Your task to perform on an android device: change alarm snooze length Image 0: 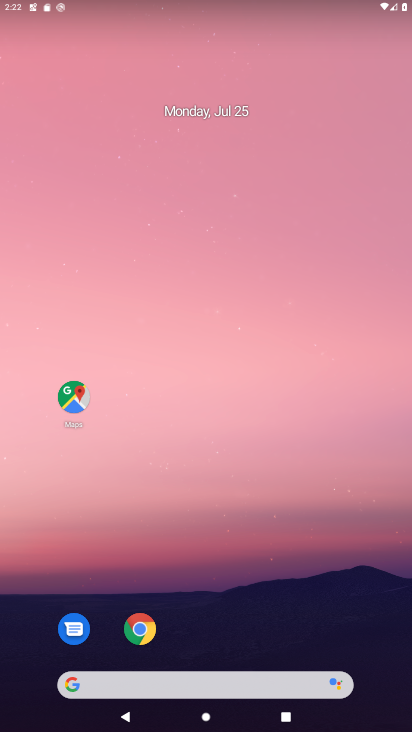
Step 0: drag from (276, 624) to (253, 0)
Your task to perform on an android device: change alarm snooze length Image 1: 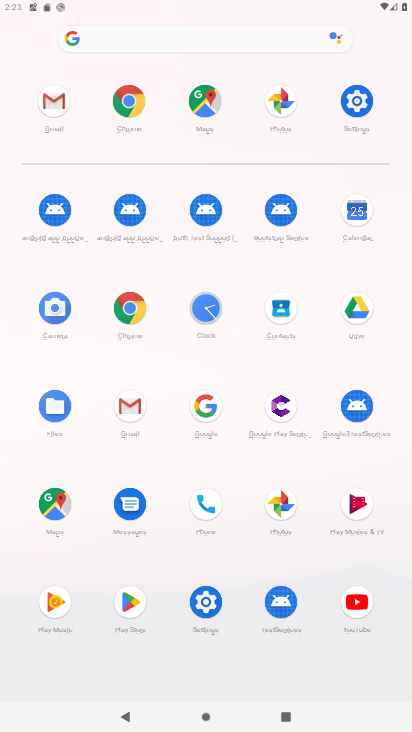
Step 1: click (213, 306)
Your task to perform on an android device: change alarm snooze length Image 2: 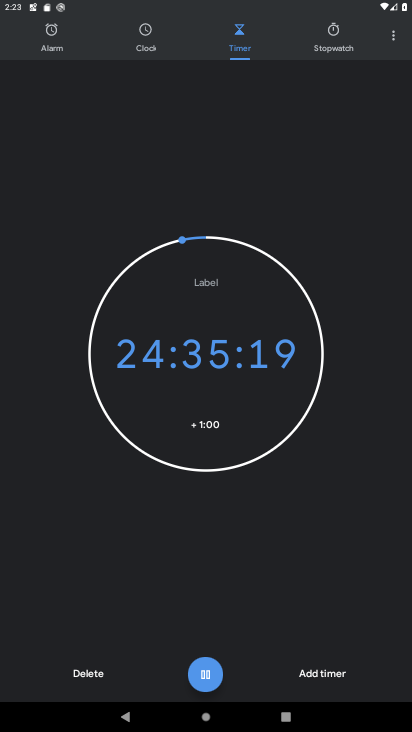
Step 2: click (395, 35)
Your task to perform on an android device: change alarm snooze length Image 3: 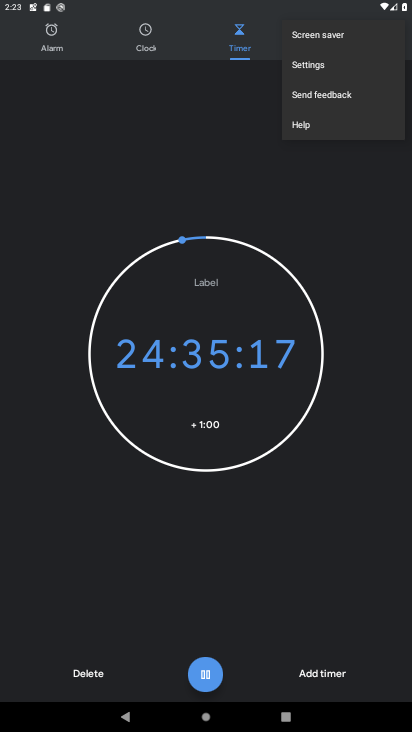
Step 3: click (317, 65)
Your task to perform on an android device: change alarm snooze length Image 4: 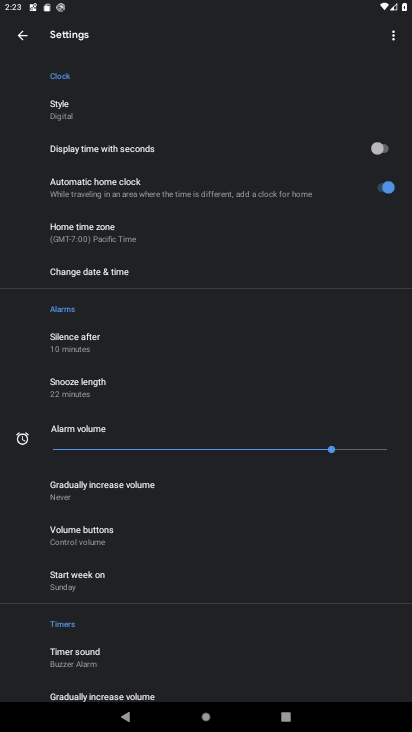
Step 4: click (89, 395)
Your task to perform on an android device: change alarm snooze length Image 5: 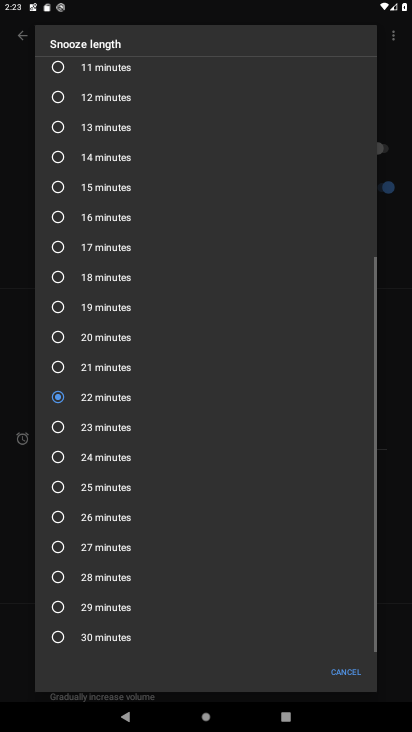
Step 5: click (93, 317)
Your task to perform on an android device: change alarm snooze length Image 6: 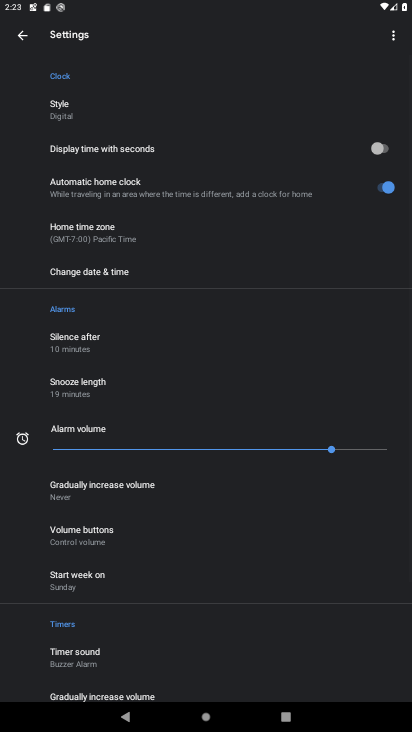
Step 6: task complete